Your task to perform on an android device: snooze an email in the gmail app Image 0: 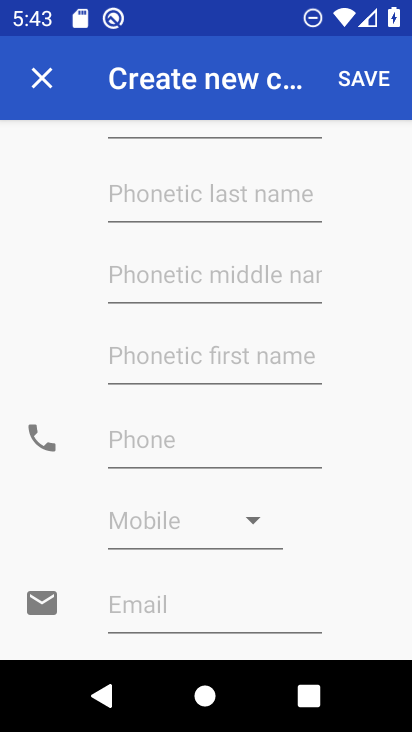
Step 0: press home button
Your task to perform on an android device: snooze an email in the gmail app Image 1: 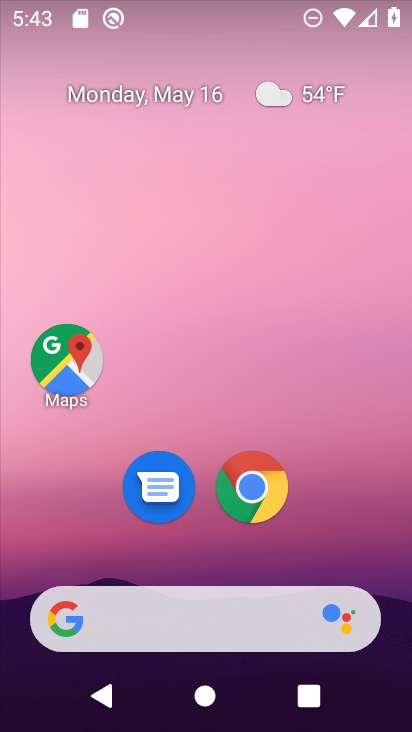
Step 1: drag from (178, 591) to (185, 206)
Your task to perform on an android device: snooze an email in the gmail app Image 2: 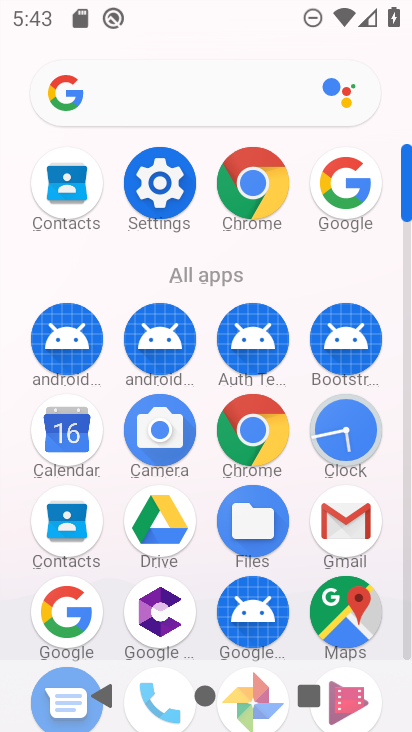
Step 2: click (349, 536)
Your task to perform on an android device: snooze an email in the gmail app Image 3: 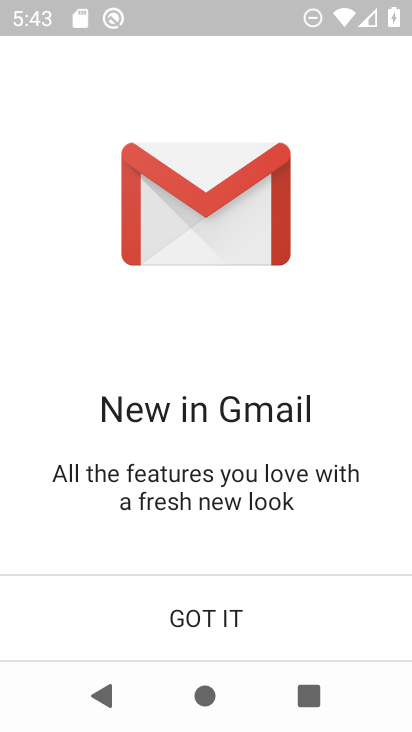
Step 3: click (195, 618)
Your task to perform on an android device: snooze an email in the gmail app Image 4: 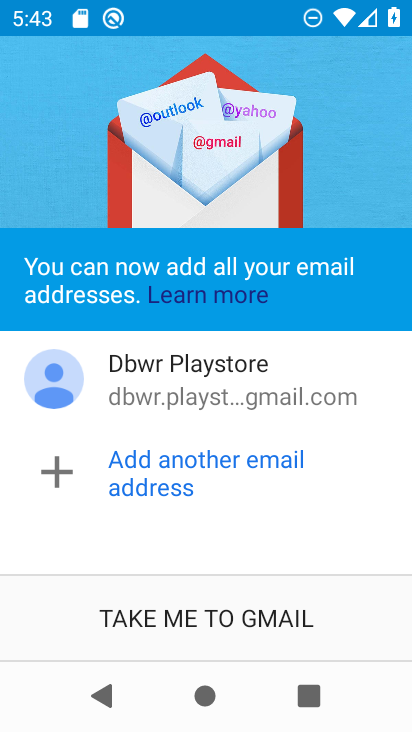
Step 4: click (195, 618)
Your task to perform on an android device: snooze an email in the gmail app Image 5: 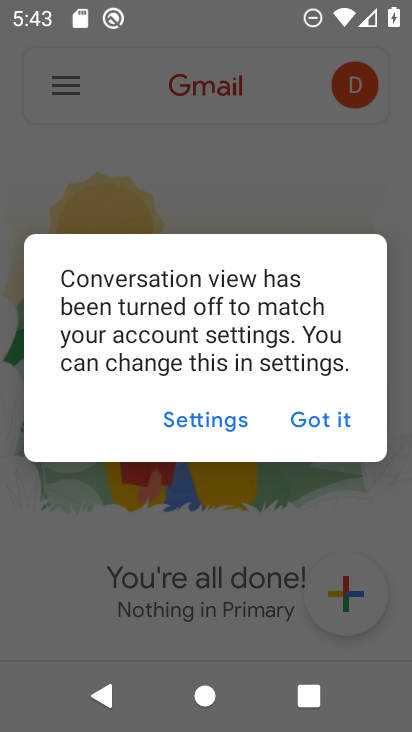
Step 5: click (336, 414)
Your task to perform on an android device: snooze an email in the gmail app Image 6: 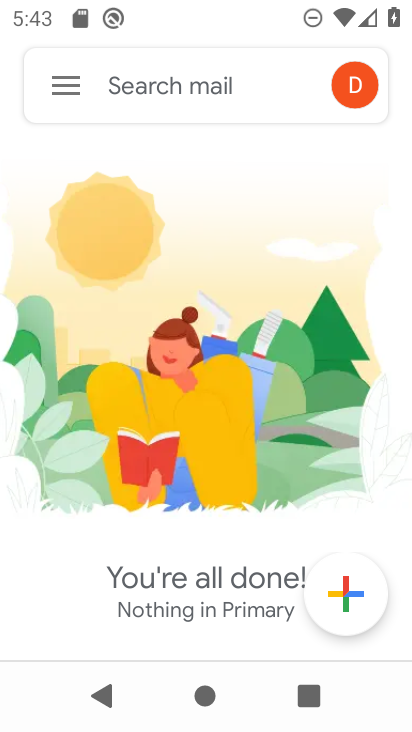
Step 6: click (62, 89)
Your task to perform on an android device: snooze an email in the gmail app Image 7: 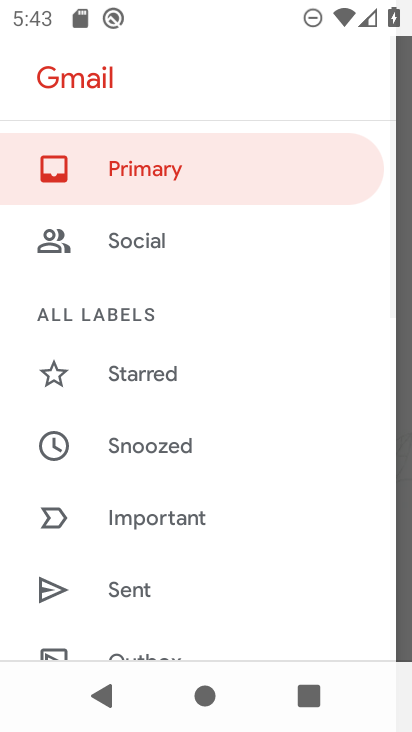
Step 7: drag from (181, 567) to (187, 318)
Your task to perform on an android device: snooze an email in the gmail app Image 8: 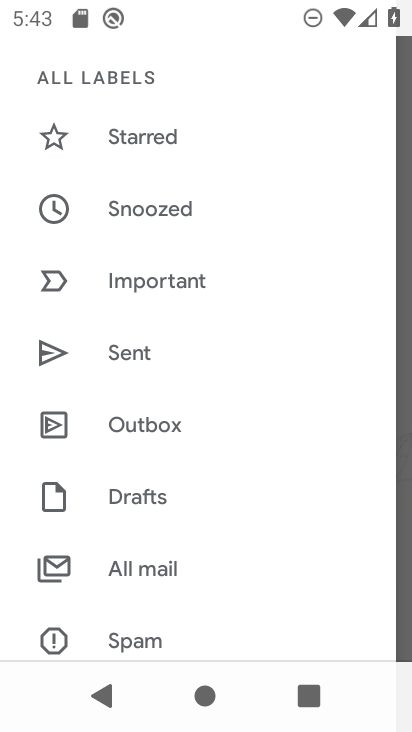
Step 8: click (158, 215)
Your task to perform on an android device: snooze an email in the gmail app Image 9: 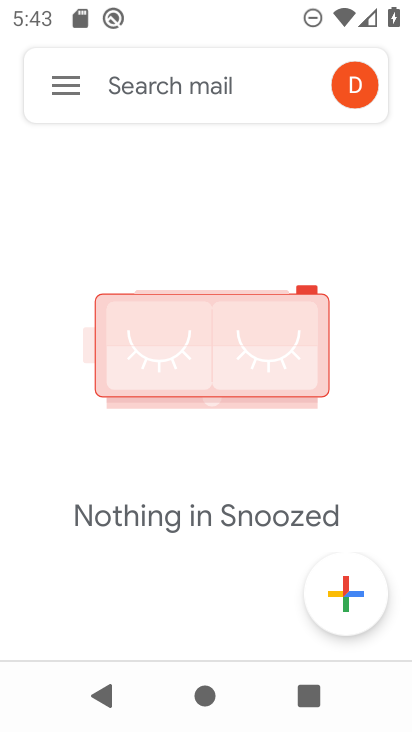
Step 9: task complete